Your task to perform on an android device: open app "Google Photos" (install if not already installed) Image 0: 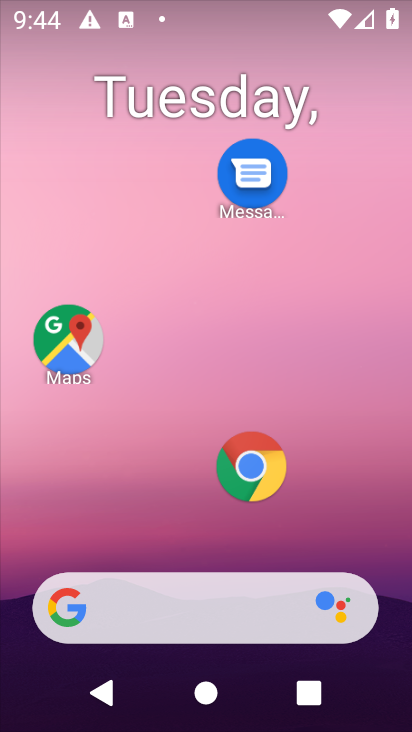
Step 0: drag from (149, 487) to (175, 3)
Your task to perform on an android device: open app "Google Photos" (install if not already installed) Image 1: 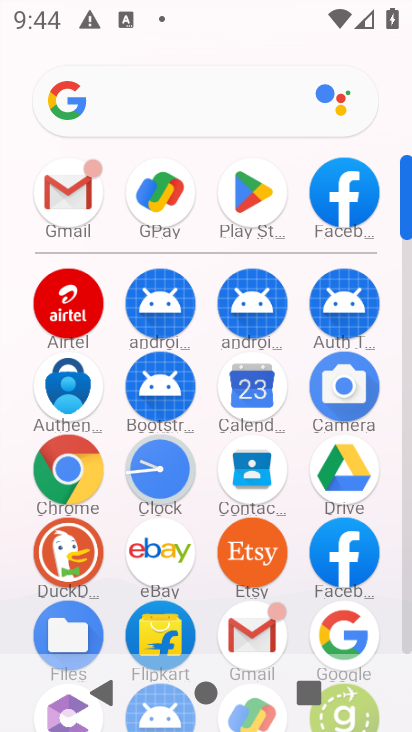
Step 1: click (250, 290)
Your task to perform on an android device: open app "Google Photos" (install if not already installed) Image 2: 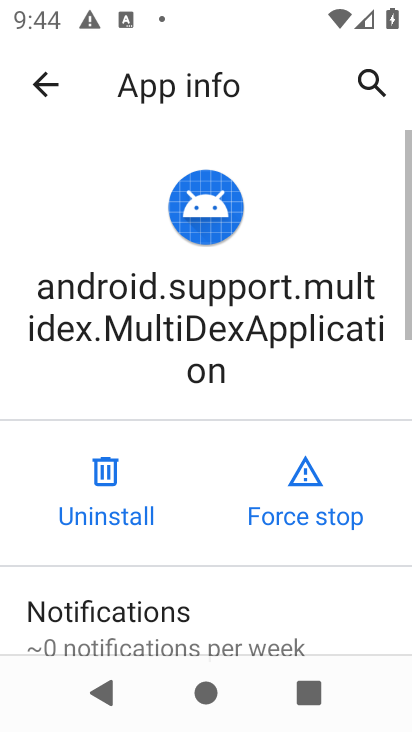
Step 2: click (365, 67)
Your task to perform on an android device: open app "Google Photos" (install if not already installed) Image 3: 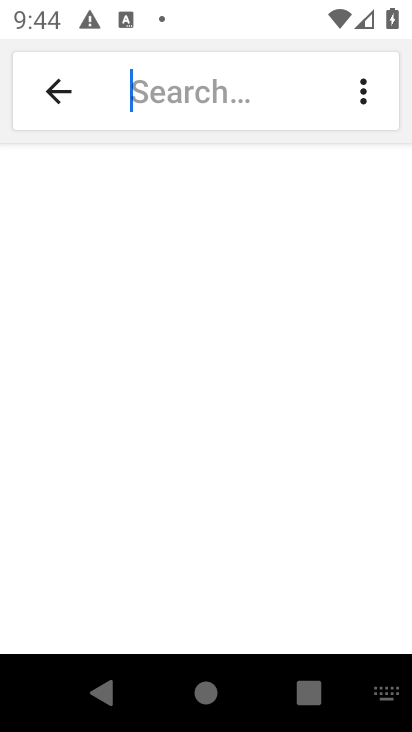
Step 3: press home button
Your task to perform on an android device: open app "Google Photos" (install if not already installed) Image 4: 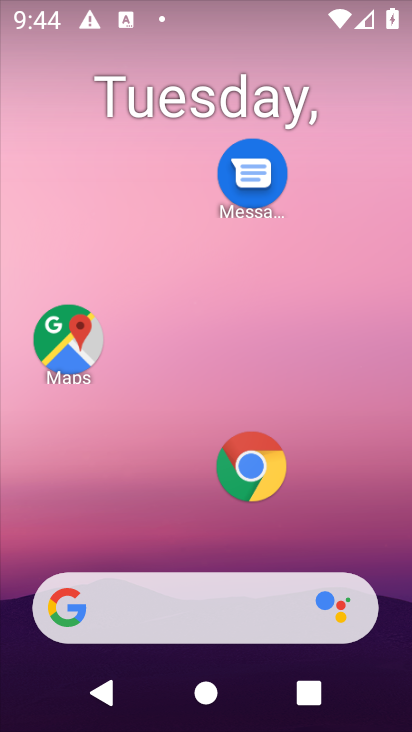
Step 4: drag from (120, 540) to (245, 53)
Your task to perform on an android device: open app "Google Photos" (install if not already installed) Image 5: 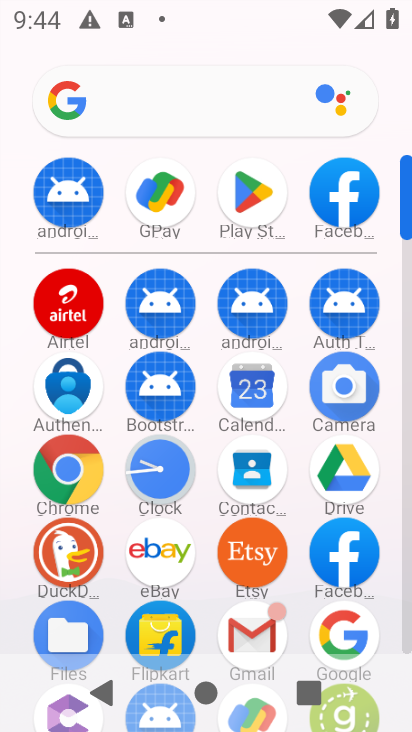
Step 5: click (257, 190)
Your task to perform on an android device: open app "Google Photos" (install if not already installed) Image 6: 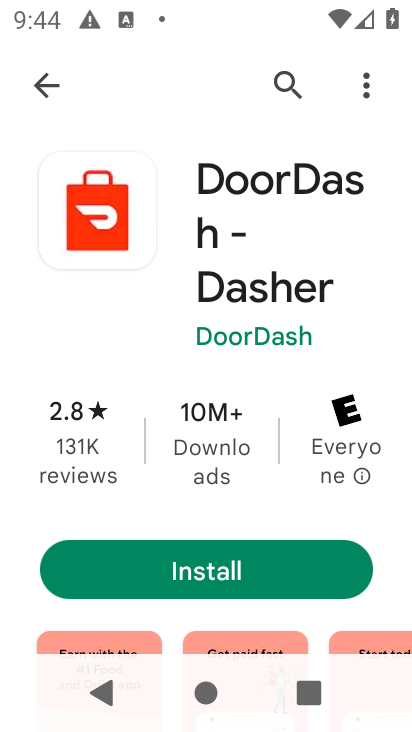
Step 6: click (284, 85)
Your task to perform on an android device: open app "Google Photos" (install if not already installed) Image 7: 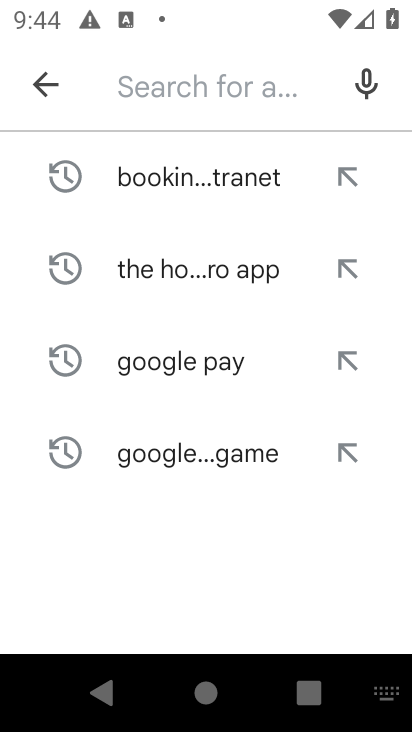
Step 7: click (132, 80)
Your task to perform on an android device: open app "Google Photos" (install if not already installed) Image 8: 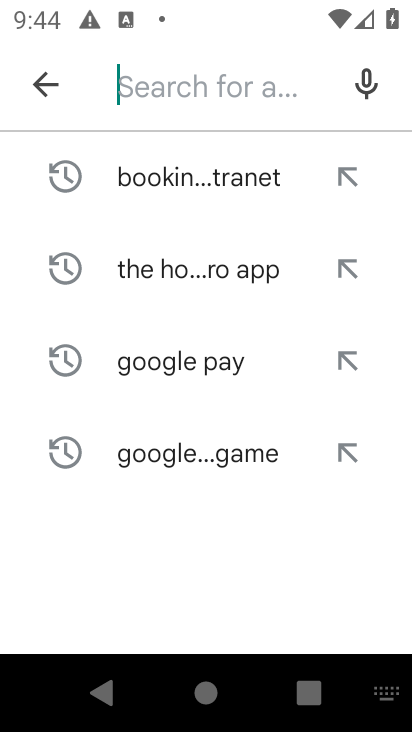
Step 8: type "Google Photos"
Your task to perform on an android device: open app "Google Photos" (install if not already installed) Image 9: 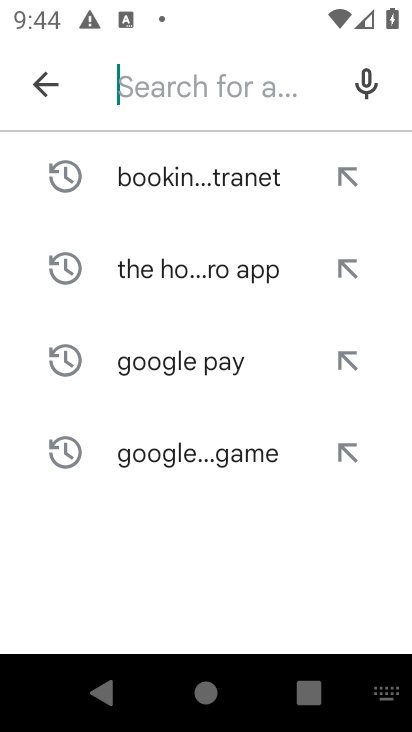
Step 9: click (125, 586)
Your task to perform on an android device: open app "Google Photos" (install if not already installed) Image 10: 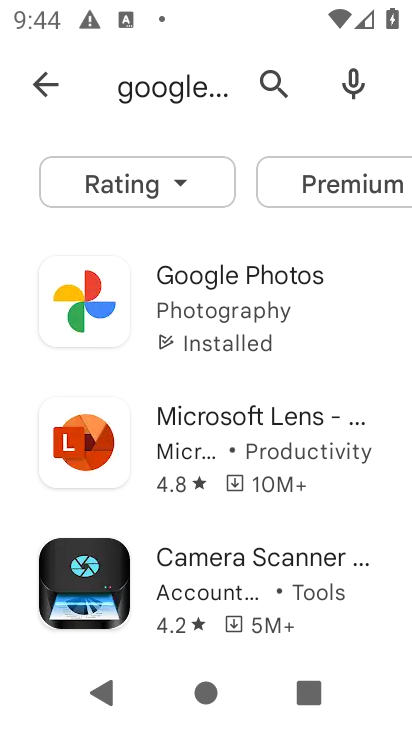
Step 10: click (227, 317)
Your task to perform on an android device: open app "Google Photos" (install if not already installed) Image 11: 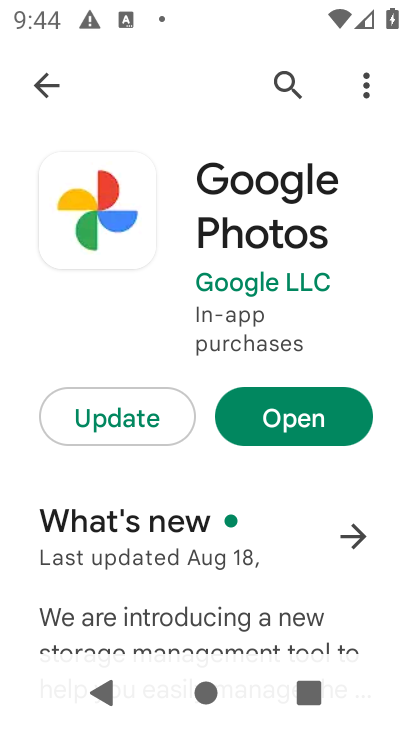
Step 11: click (322, 411)
Your task to perform on an android device: open app "Google Photos" (install if not already installed) Image 12: 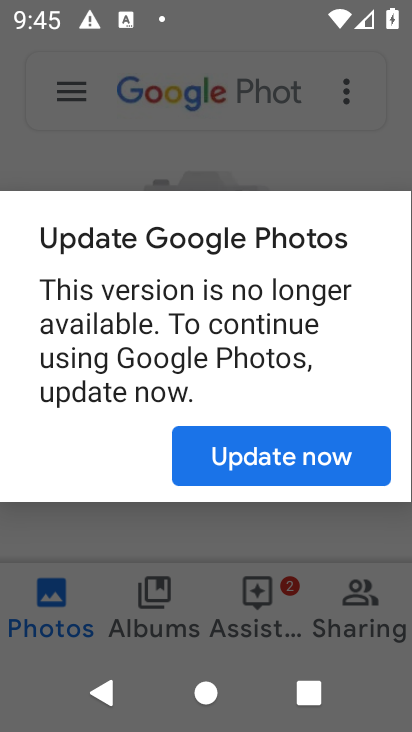
Step 12: press home button
Your task to perform on an android device: open app "Google Photos" (install if not already installed) Image 13: 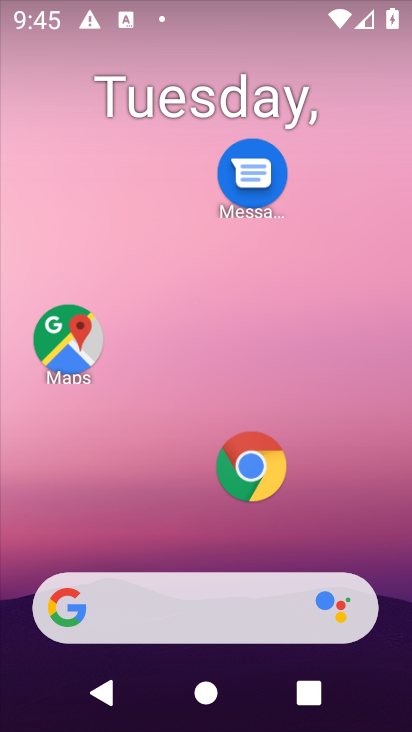
Step 13: drag from (181, 520) to (257, 5)
Your task to perform on an android device: open app "Google Photos" (install if not already installed) Image 14: 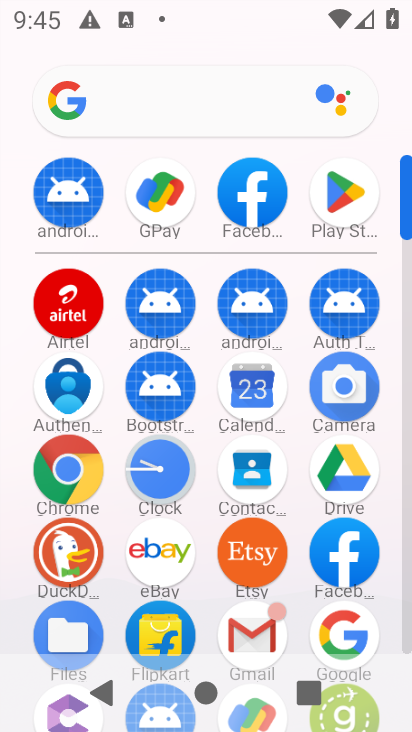
Step 14: click (350, 198)
Your task to perform on an android device: open app "Google Photos" (install if not already installed) Image 15: 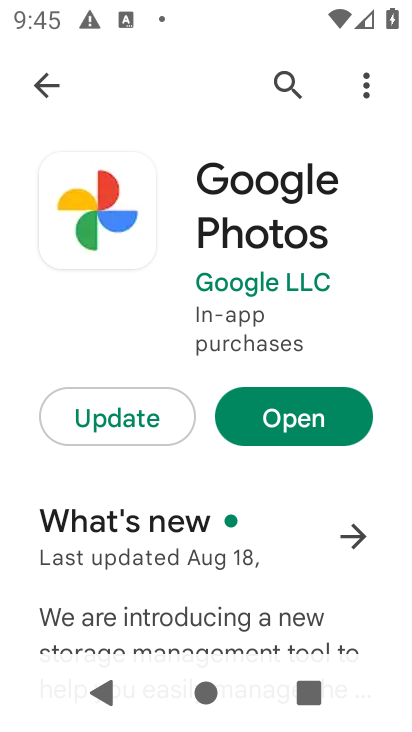
Step 15: click (265, 76)
Your task to perform on an android device: open app "Google Photos" (install if not already installed) Image 16: 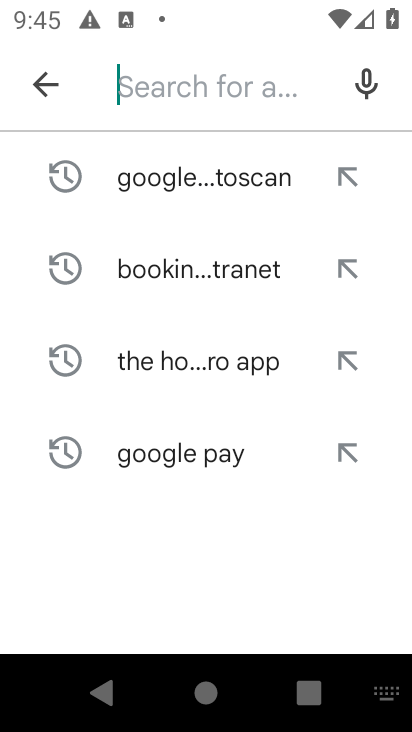
Step 16: press back button
Your task to perform on an android device: open app "Google Photos" (install if not already installed) Image 17: 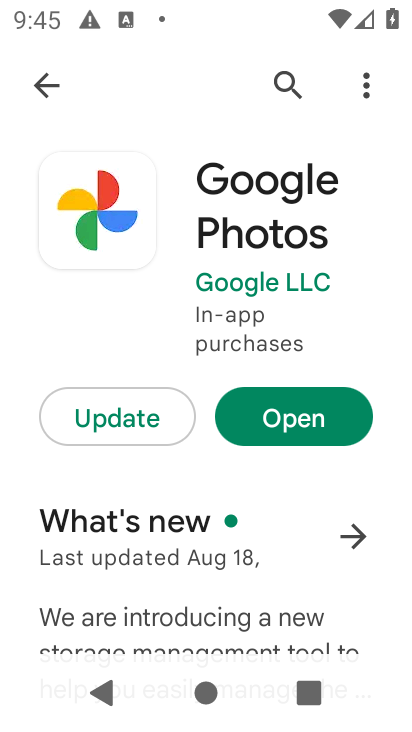
Step 17: click (272, 425)
Your task to perform on an android device: open app "Google Photos" (install if not already installed) Image 18: 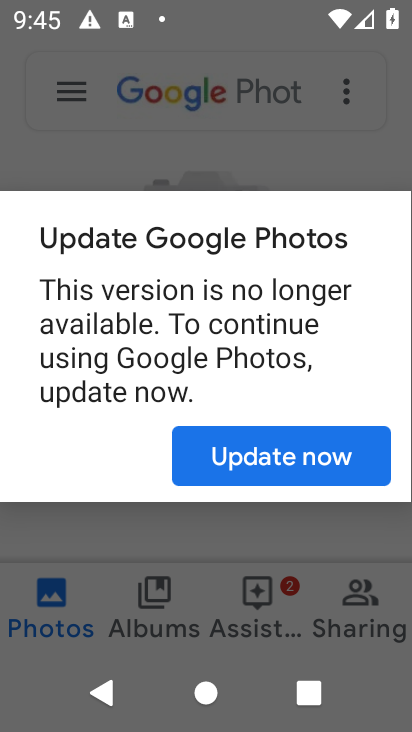
Step 18: task complete